Your task to perform on an android device: set the timer Image 0: 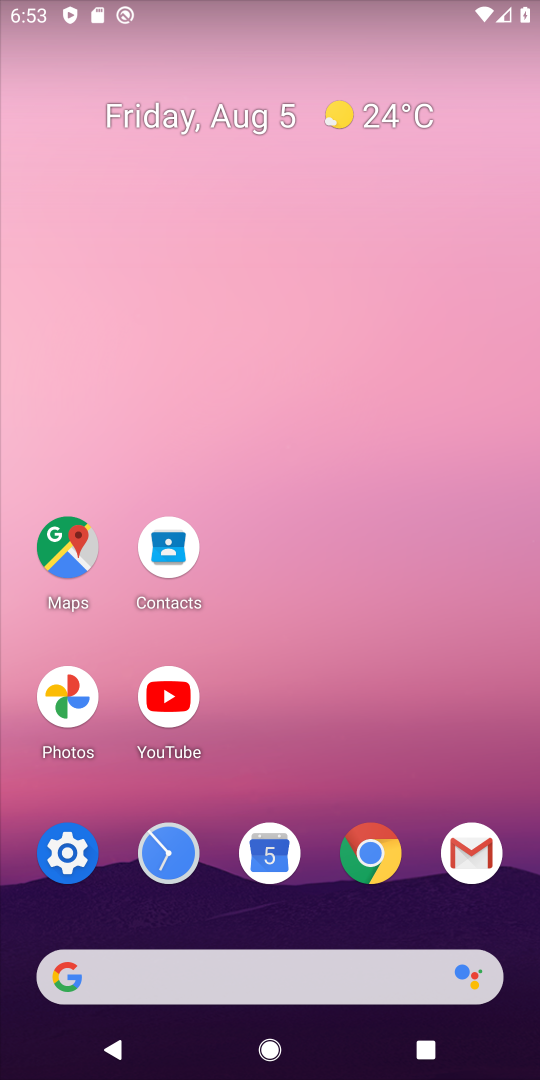
Step 0: click (167, 850)
Your task to perform on an android device: set the timer Image 1: 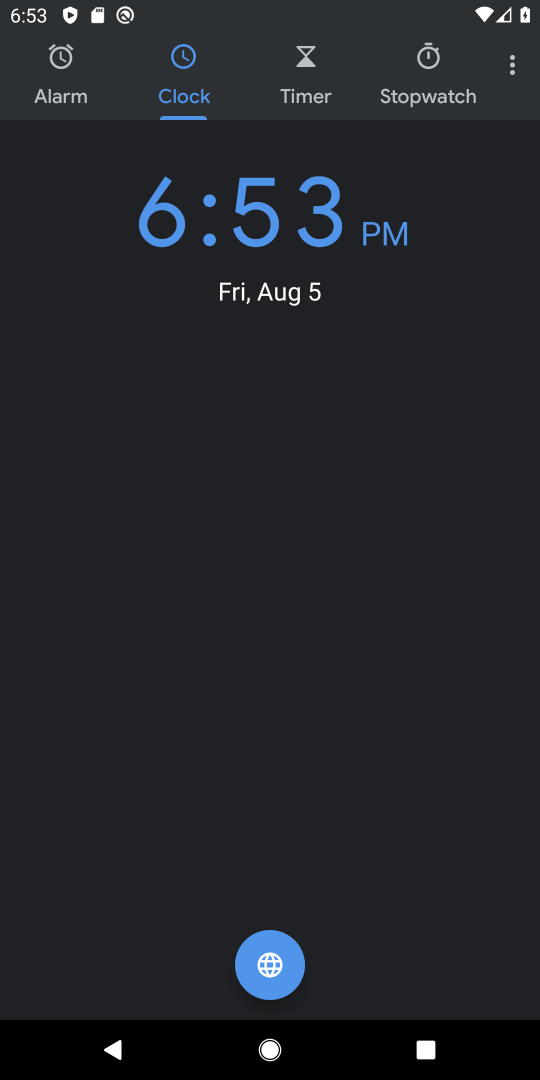
Step 1: click (302, 54)
Your task to perform on an android device: set the timer Image 2: 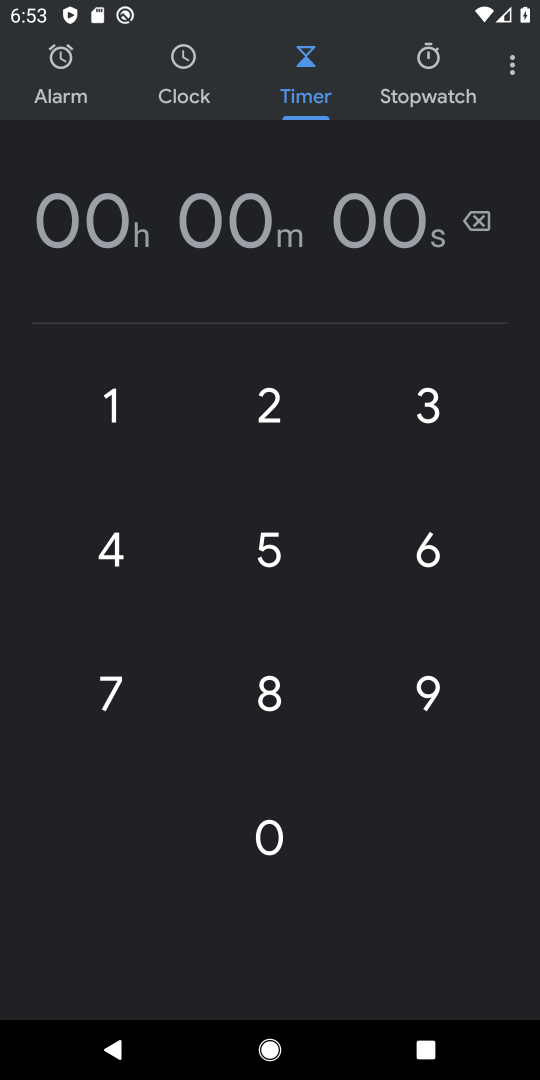
Step 2: click (110, 408)
Your task to perform on an android device: set the timer Image 3: 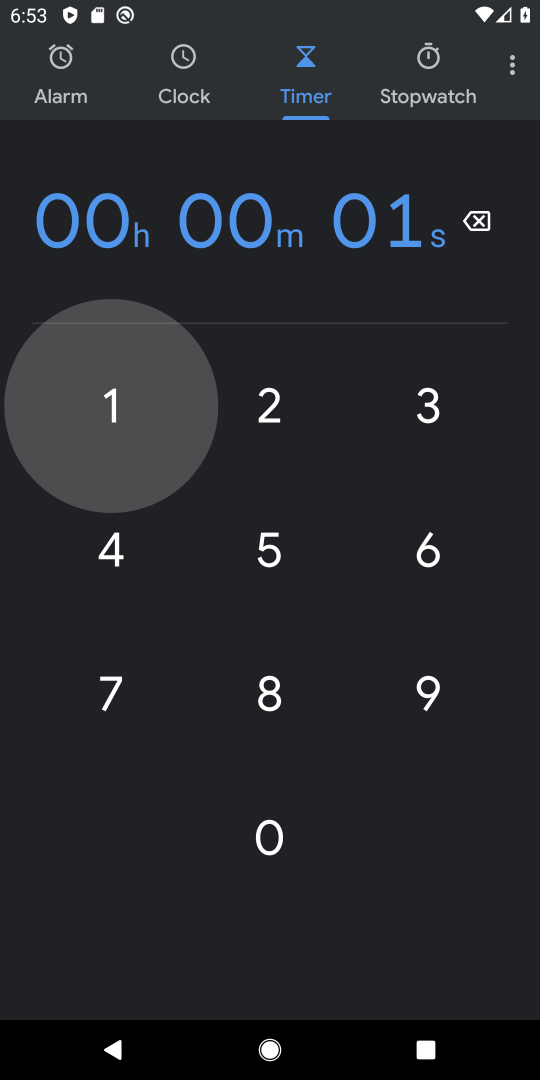
Step 3: click (110, 408)
Your task to perform on an android device: set the timer Image 4: 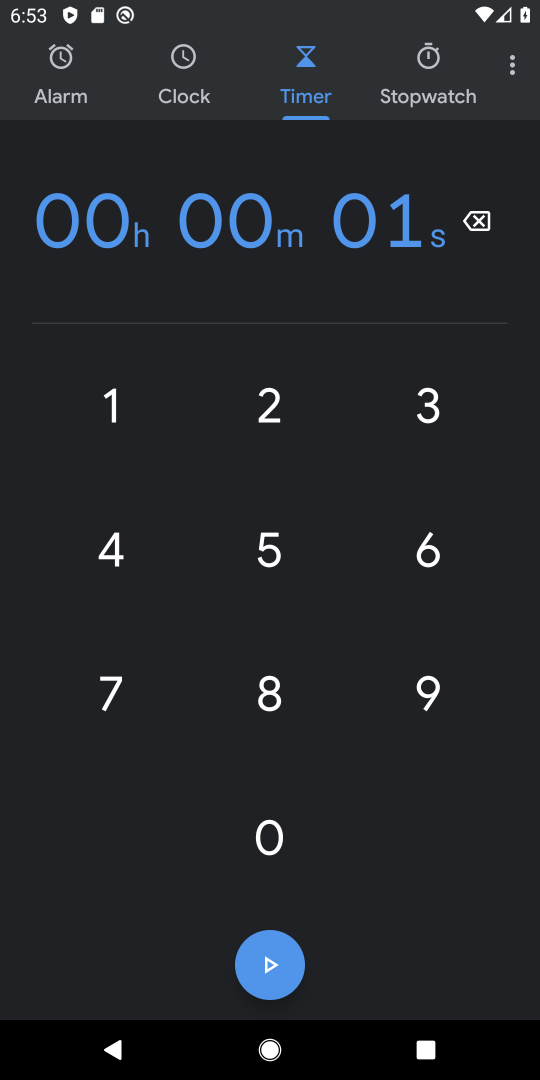
Step 4: click (110, 408)
Your task to perform on an android device: set the timer Image 5: 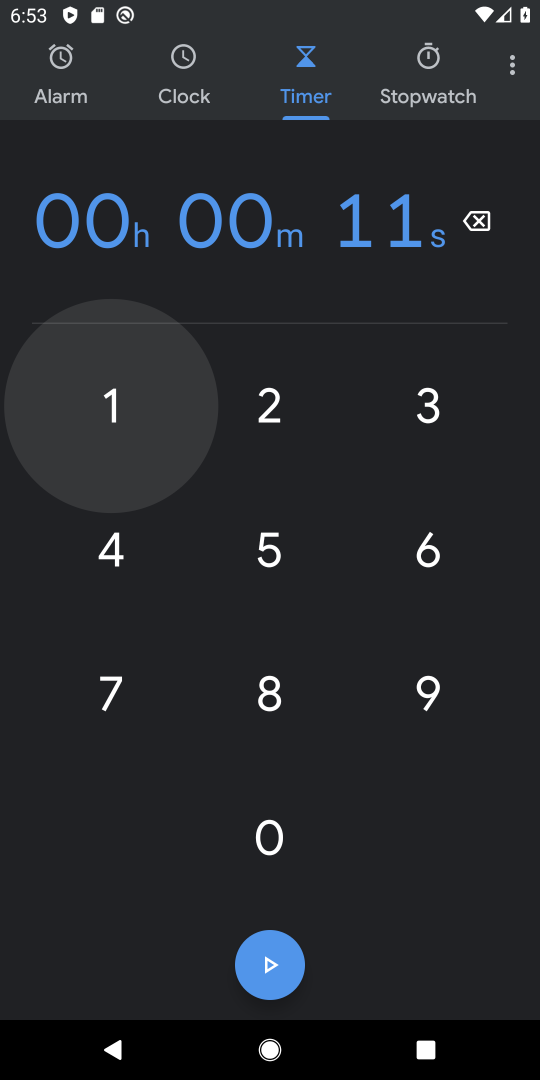
Step 5: click (110, 408)
Your task to perform on an android device: set the timer Image 6: 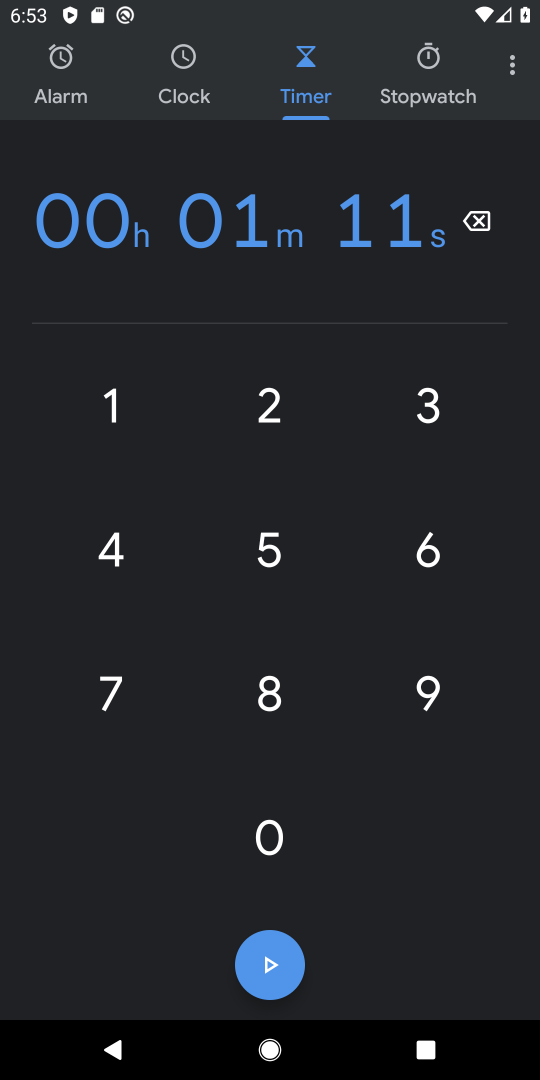
Step 6: click (110, 408)
Your task to perform on an android device: set the timer Image 7: 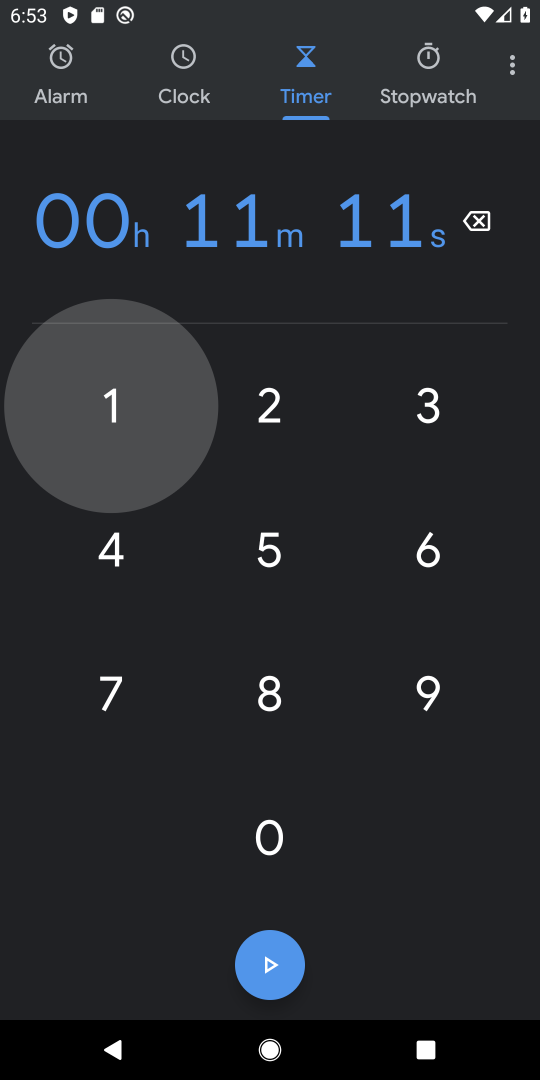
Step 7: click (110, 408)
Your task to perform on an android device: set the timer Image 8: 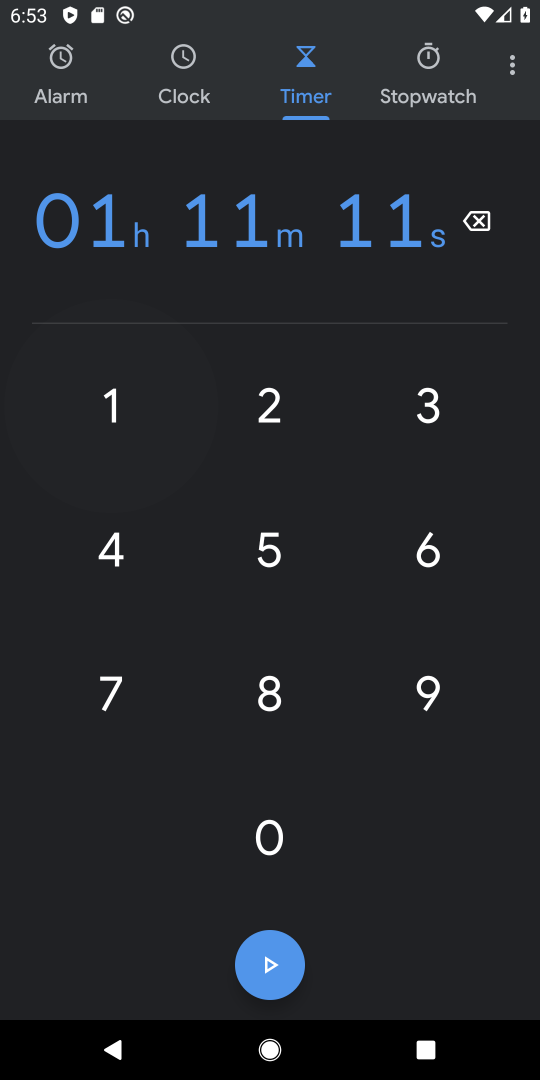
Step 8: click (110, 408)
Your task to perform on an android device: set the timer Image 9: 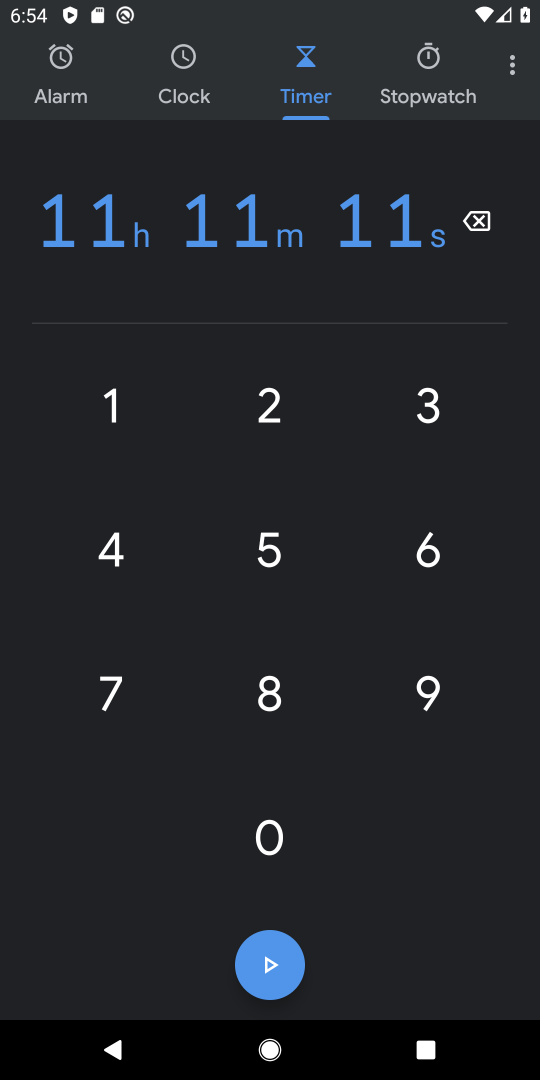
Step 9: task complete